Your task to perform on an android device: Search for sushi restaurants on Maps Image 0: 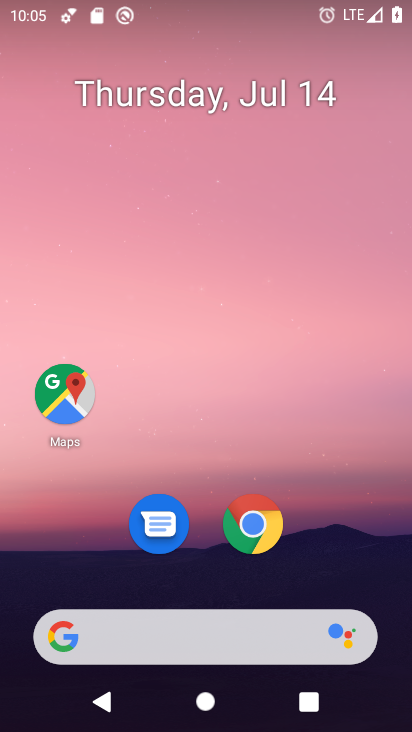
Step 0: drag from (333, 481) to (303, 0)
Your task to perform on an android device: Search for sushi restaurants on Maps Image 1: 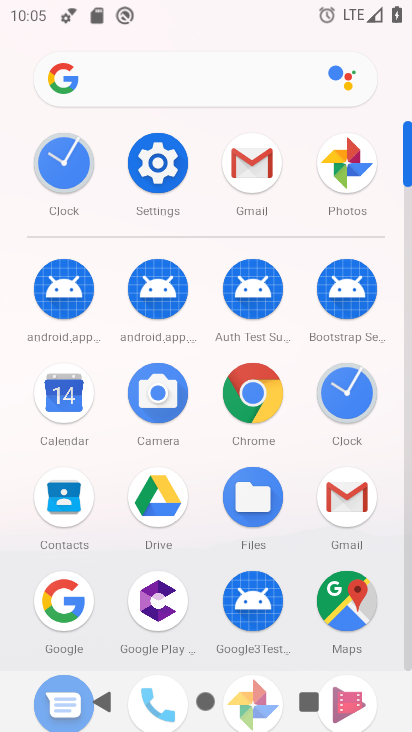
Step 1: drag from (210, 482) to (218, 165)
Your task to perform on an android device: Search for sushi restaurants on Maps Image 2: 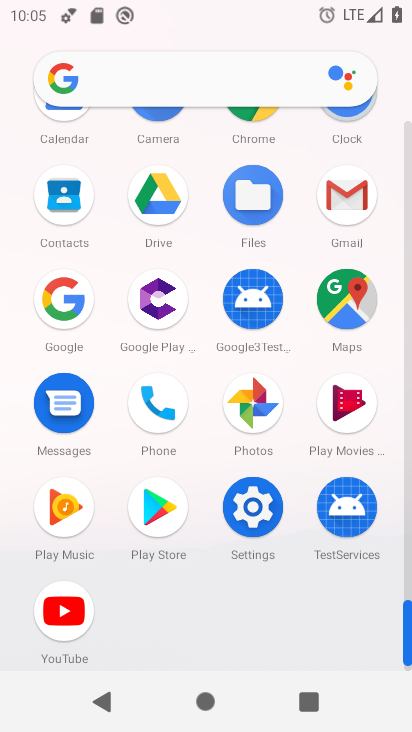
Step 2: click (337, 306)
Your task to perform on an android device: Search for sushi restaurants on Maps Image 3: 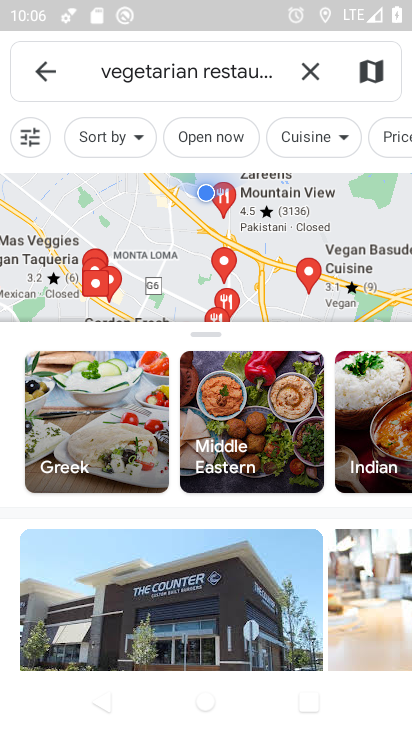
Step 3: click (48, 68)
Your task to perform on an android device: Search for sushi restaurants on Maps Image 4: 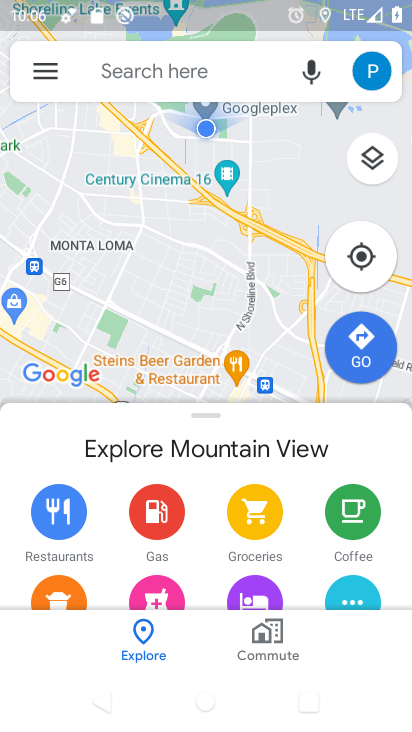
Step 4: click (107, 63)
Your task to perform on an android device: Search for sushi restaurants on Maps Image 5: 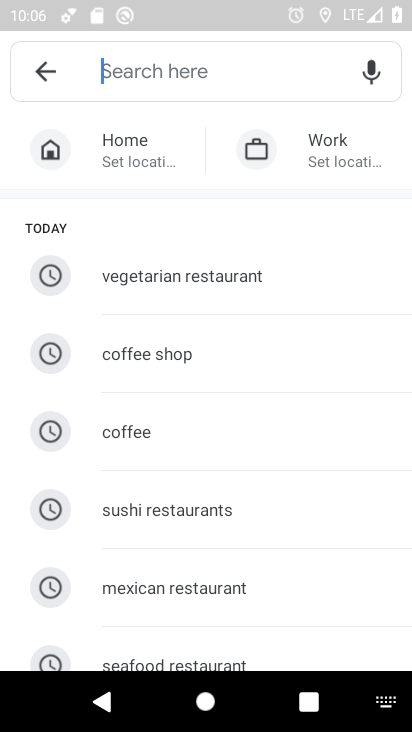
Step 5: click (206, 508)
Your task to perform on an android device: Search for sushi restaurants on Maps Image 6: 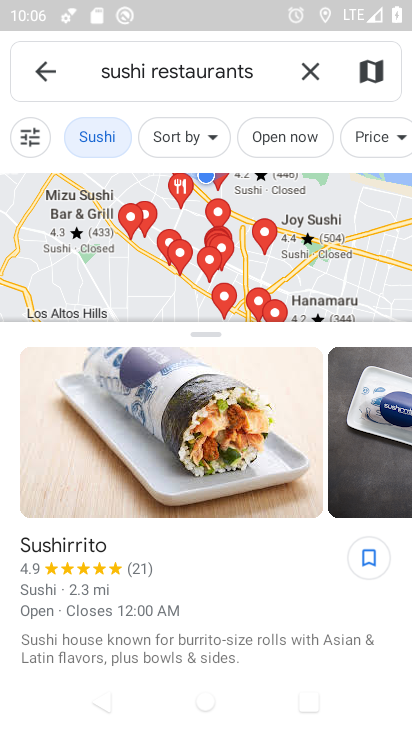
Step 6: task complete